Your task to perform on an android device: set an alarm Image 0: 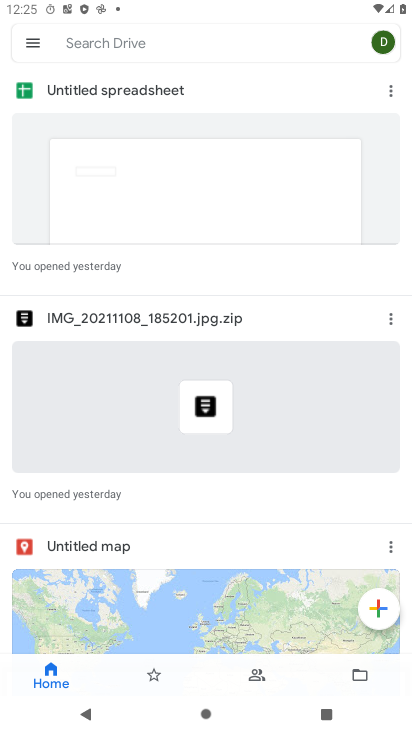
Step 0: press home button
Your task to perform on an android device: set an alarm Image 1: 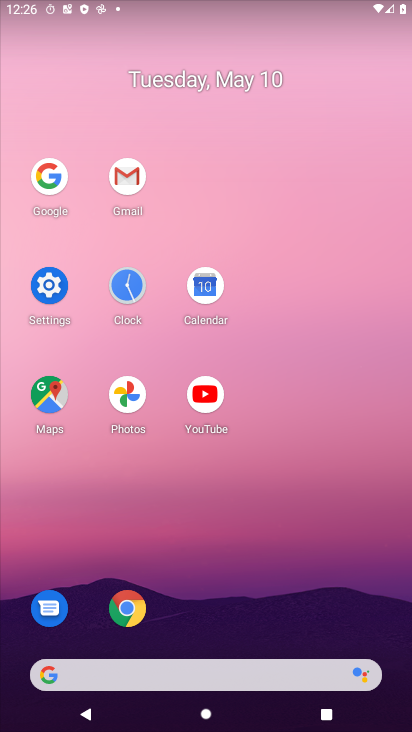
Step 1: click (133, 280)
Your task to perform on an android device: set an alarm Image 2: 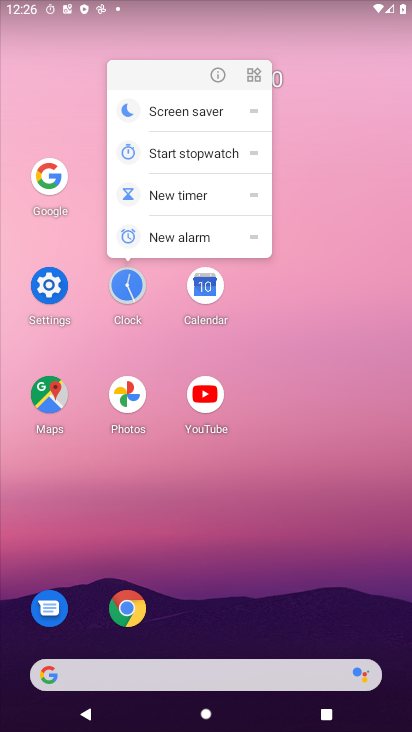
Step 2: click (135, 279)
Your task to perform on an android device: set an alarm Image 3: 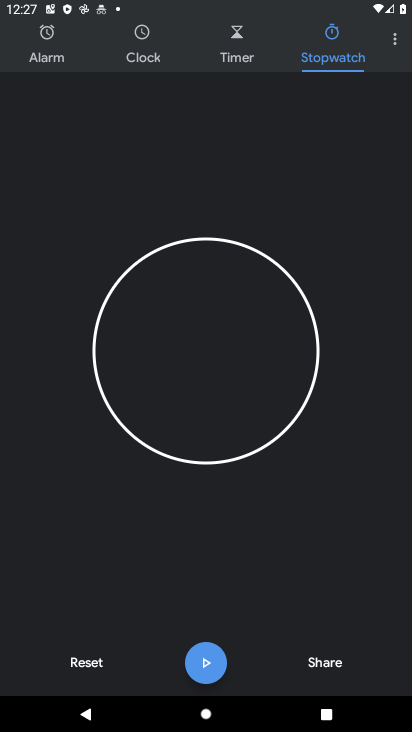
Step 3: click (45, 44)
Your task to perform on an android device: set an alarm Image 4: 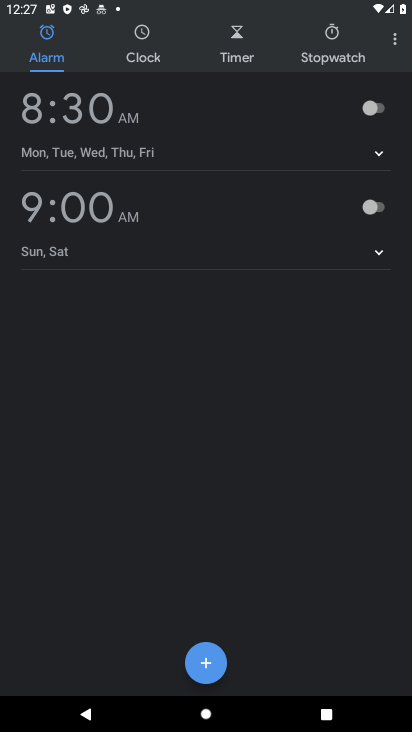
Step 4: click (377, 113)
Your task to perform on an android device: set an alarm Image 5: 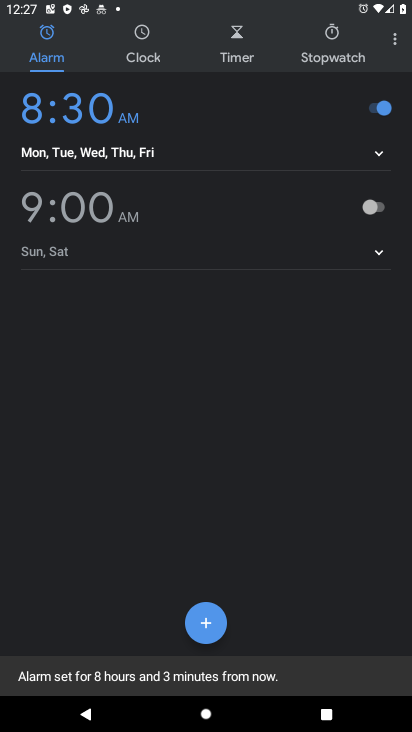
Step 5: task complete